Your task to perform on an android device: Show me the alarms in the clock app Image 0: 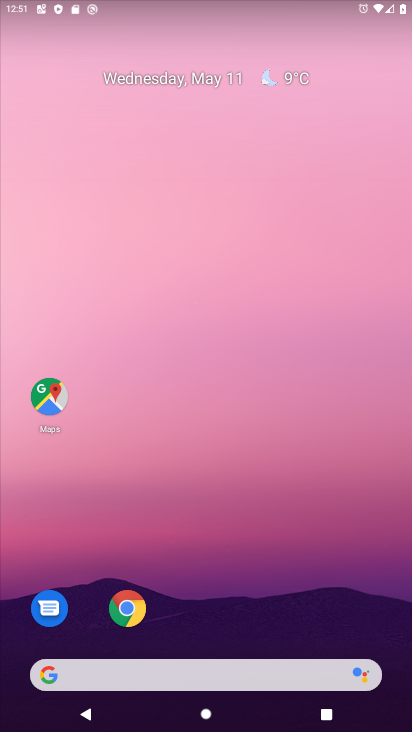
Step 0: drag from (218, 626) to (156, 238)
Your task to perform on an android device: Show me the alarms in the clock app Image 1: 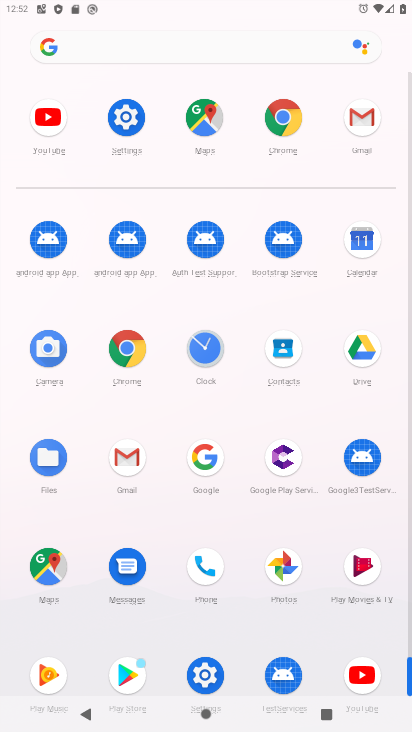
Step 1: click (204, 360)
Your task to perform on an android device: Show me the alarms in the clock app Image 2: 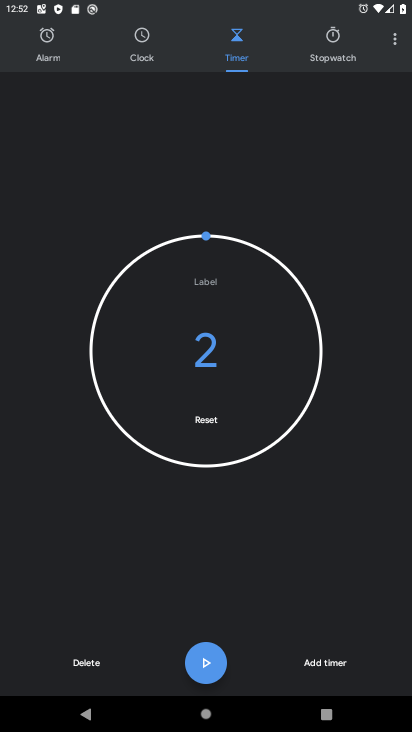
Step 2: click (40, 60)
Your task to perform on an android device: Show me the alarms in the clock app Image 3: 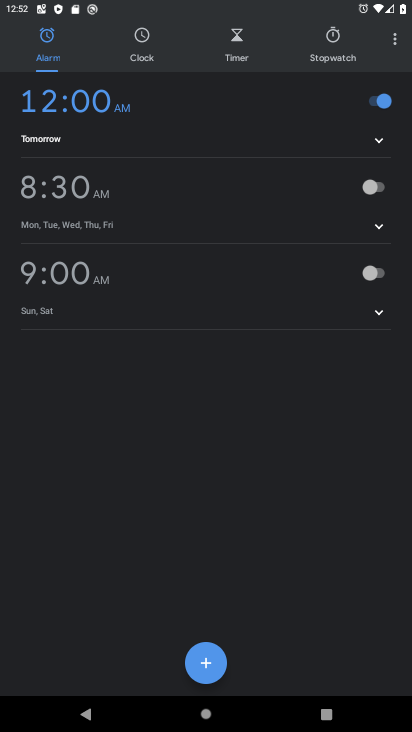
Step 3: task complete